Your task to perform on an android device: Open Maps and search for coffee Image 0: 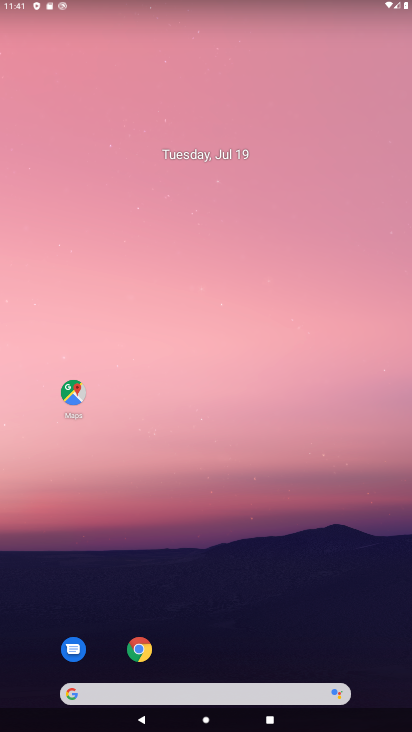
Step 0: click (62, 389)
Your task to perform on an android device: Open Maps and search for coffee Image 1: 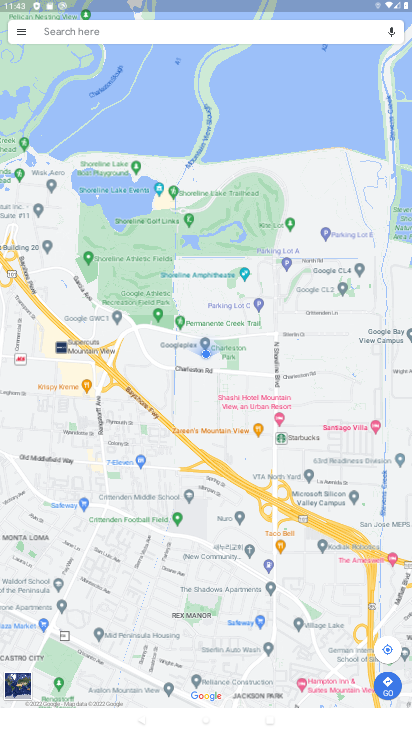
Step 1: click (263, 24)
Your task to perform on an android device: Open Maps and search for coffee Image 2: 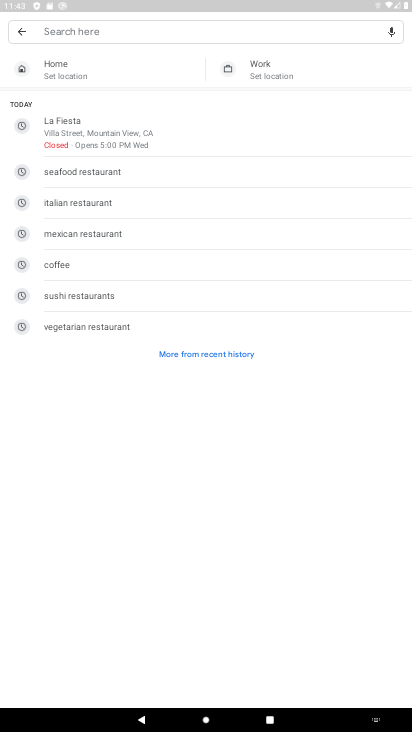
Step 2: click (82, 263)
Your task to perform on an android device: Open Maps and search for coffee Image 3: 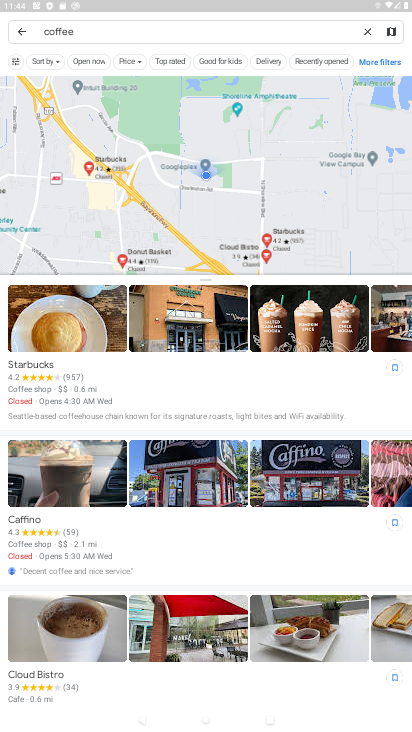
Step 3: task complete